Your task to perform on an android device: turn off airplane mode Image 0: 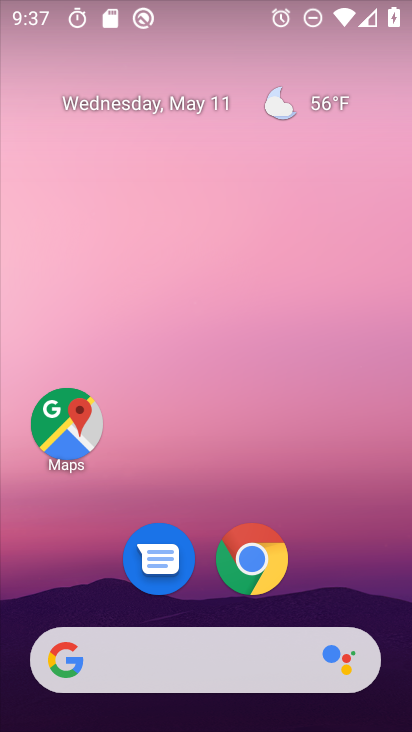
Step 0: drag from (354, 575) to (311, 92)
Your task to perform on an android device: turn off airplane mode Image 1: 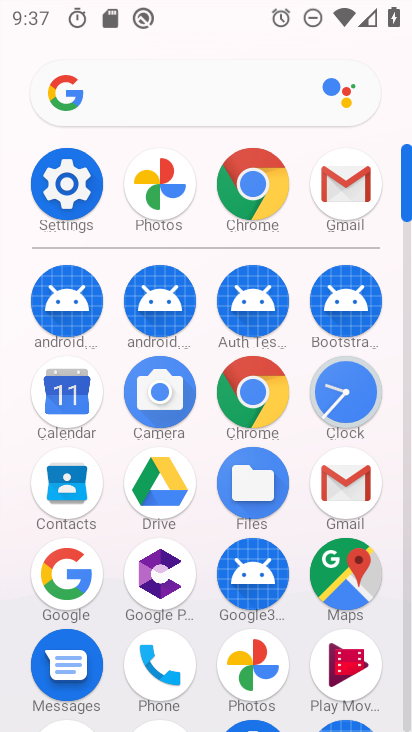
Step 1: click (37, 195)
Your task to perform on an android device: turn off airplane mode Image 2: 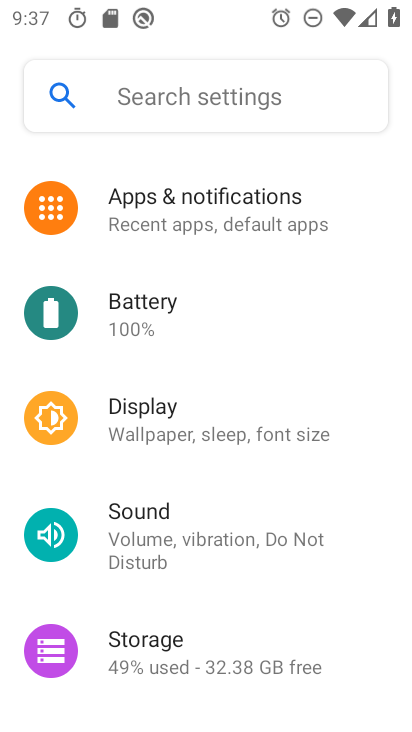
Step 2: drag from (208, 231) to (140, 497)
Your task to perform on an android device: turn off airplane mode Image 3: 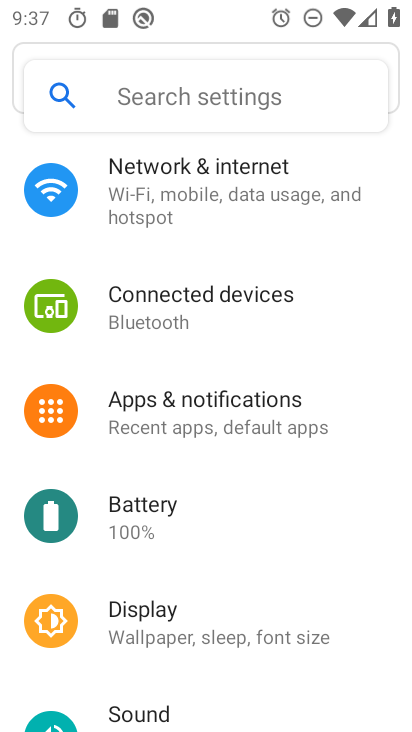
Step 3: click (183, 186)
Your task to perform on an android device: turn off airplane mode Image 4: 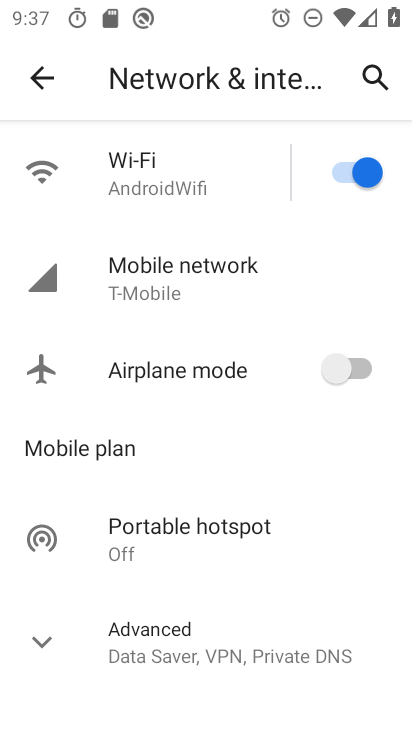
Step 4: task complete